Your task to perform on an android device: open app "Google Sheets" (install if not already installed) Image 0: 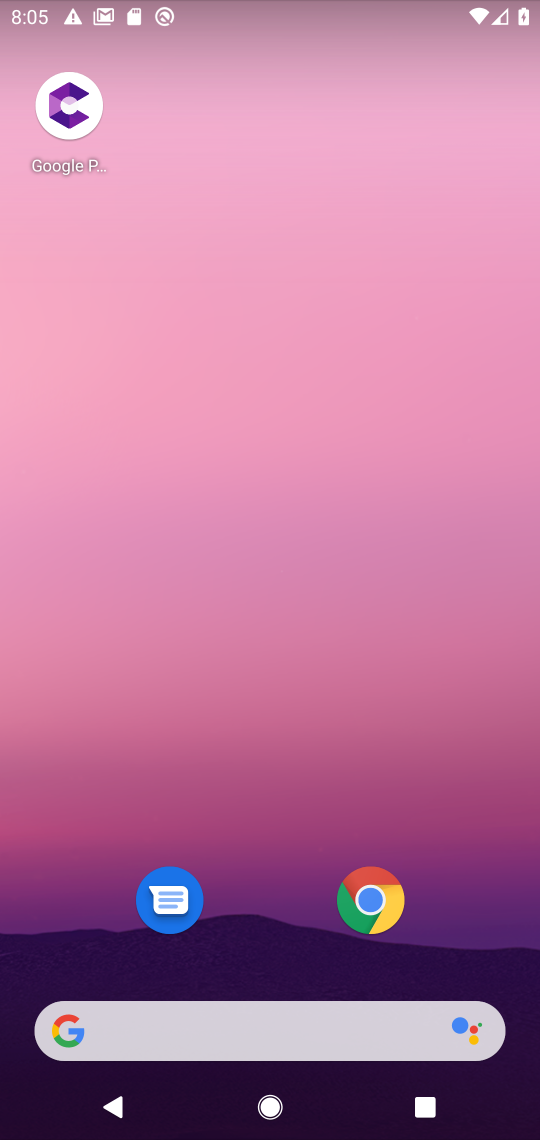
Step 0: drag from (229, 989) to (390, 116)
Your task to perform on an android device: open app "Google Sheets" (install if not already installed) Image 1: 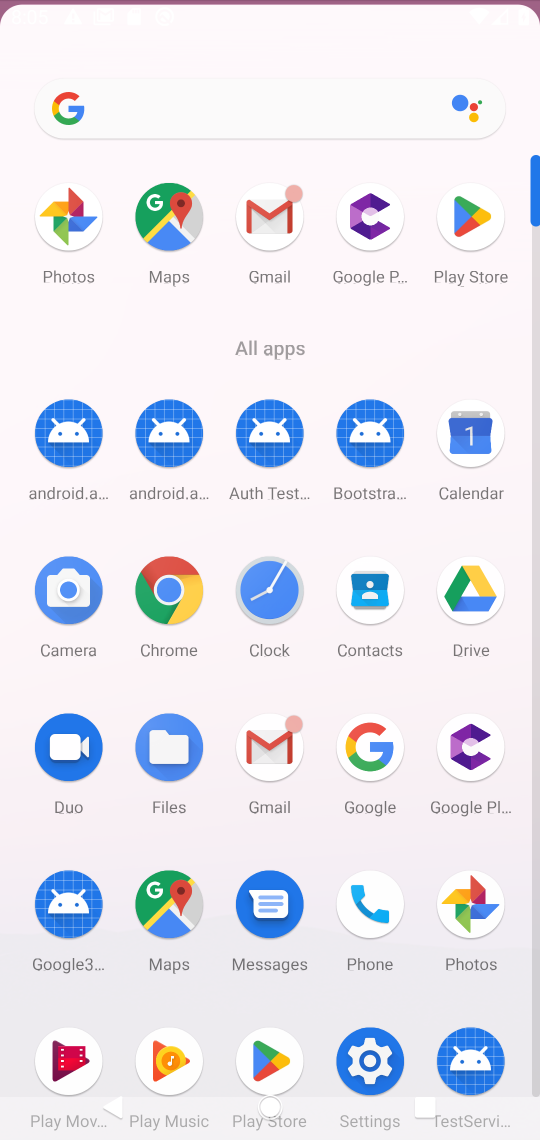
Step 1: click (264, 1052)
Your task to perform on an android device: open app "Google Sheets" (install if not already installed) Image 2: 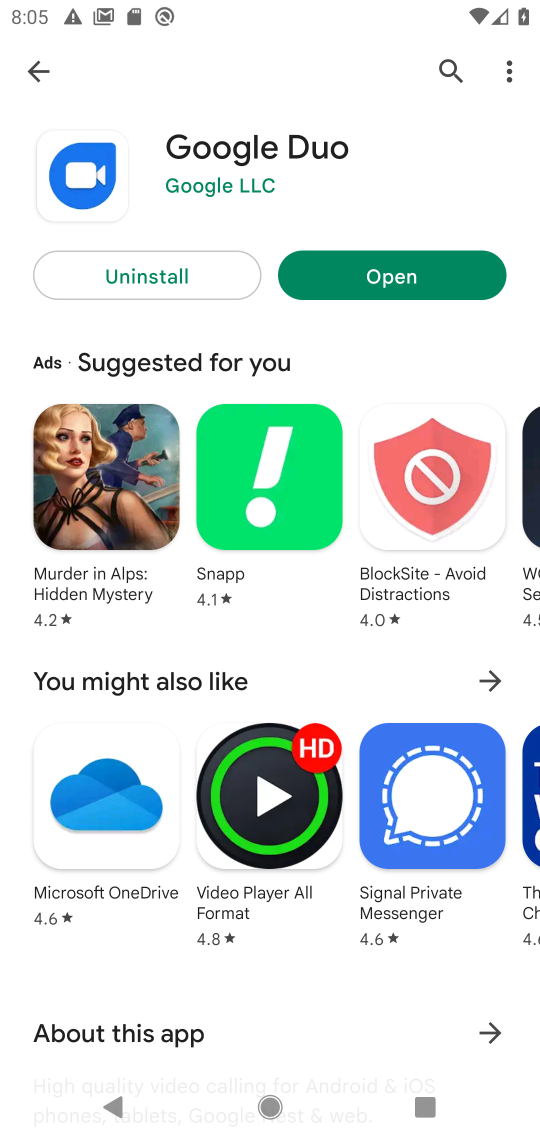
Step 2: click (78, 49)
Your task to perform on an android device: open app "Google Sheets" (install if not already installed) Image 3: 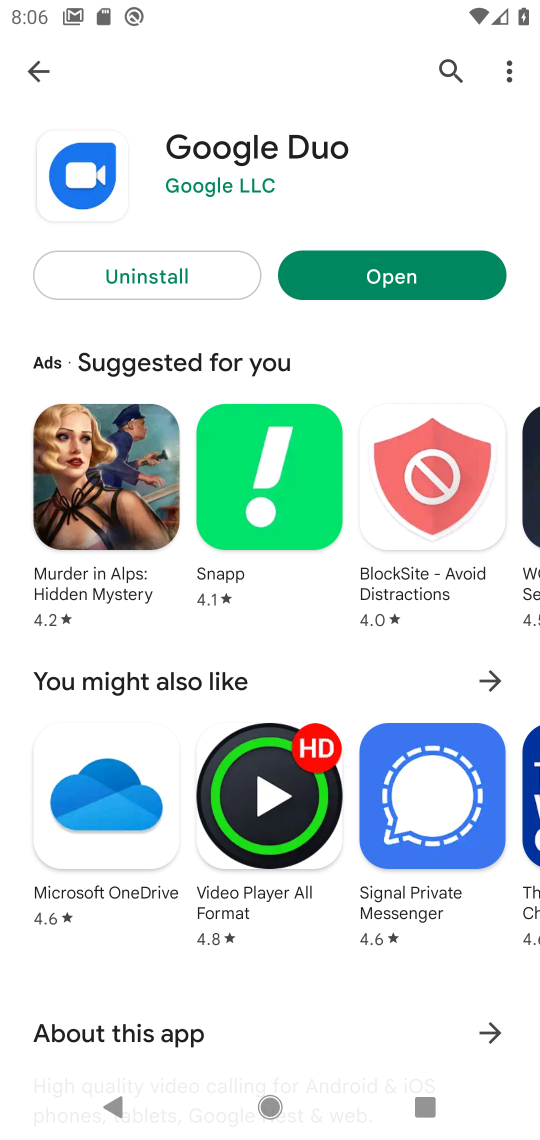
Step 3: click (40, 69)
Your task to perform on an android device: open app "Google Sheets" (install if not already installed) Image 4: 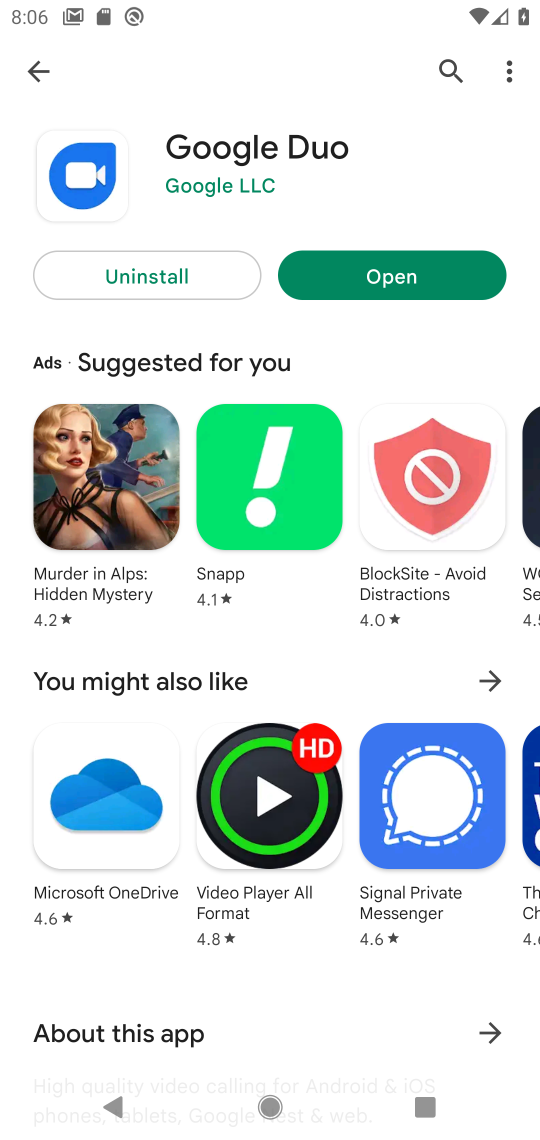
Step 4: click (450, 73)
Your task to perform on an android device: open app "Google Sheets" (install if not already installed) Image 5: 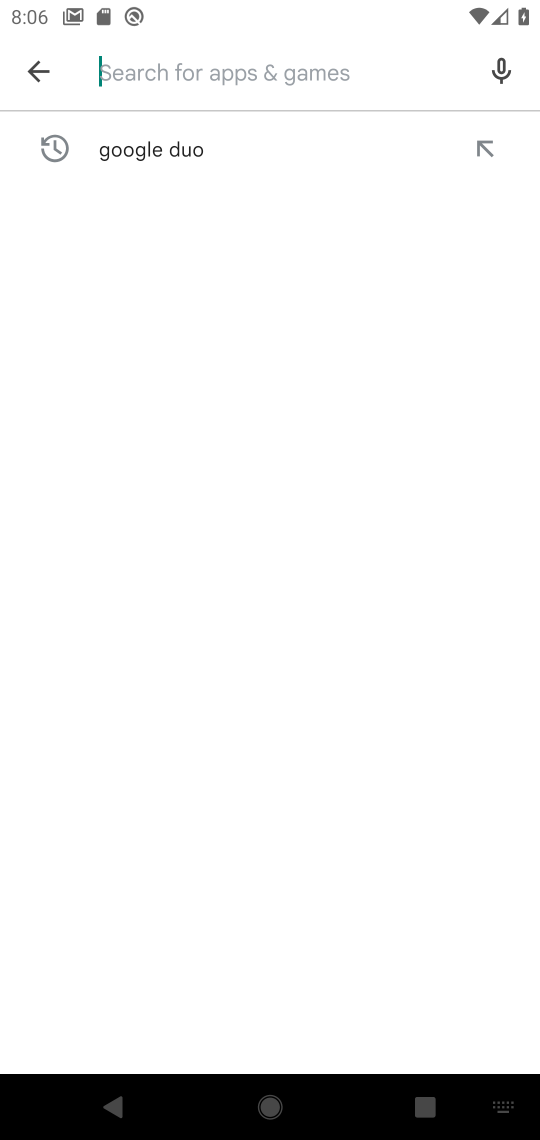
Step 5: type "Google Sheets"
Your task to perform on an android device: open app "Google Sheets" (install if not already installed) Image 6: 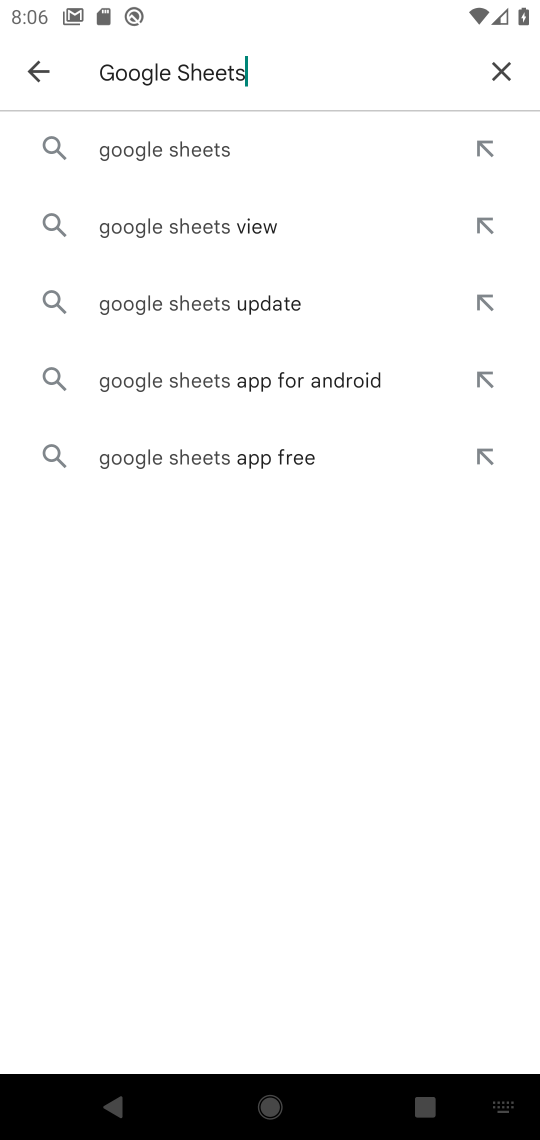
Step 6: click (148, 146)
Your task to perform on an android device: open app "Google Sheets" (install if not already installed) Image 7: 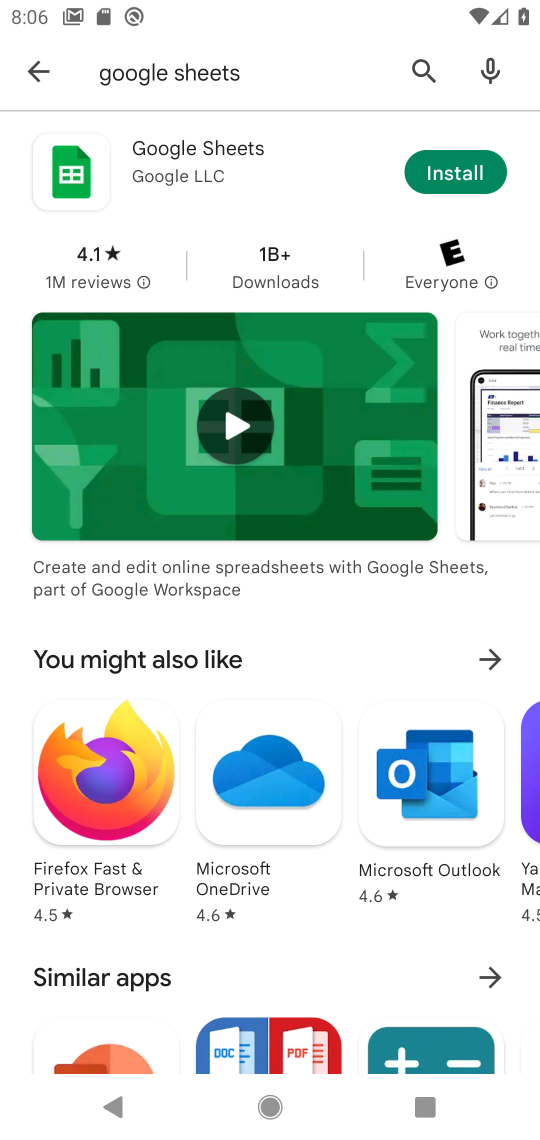
Step 7: click (420, 182)
Your task to perform on an android device: open app "Google Sheets" (install if not already installed) Image 8: 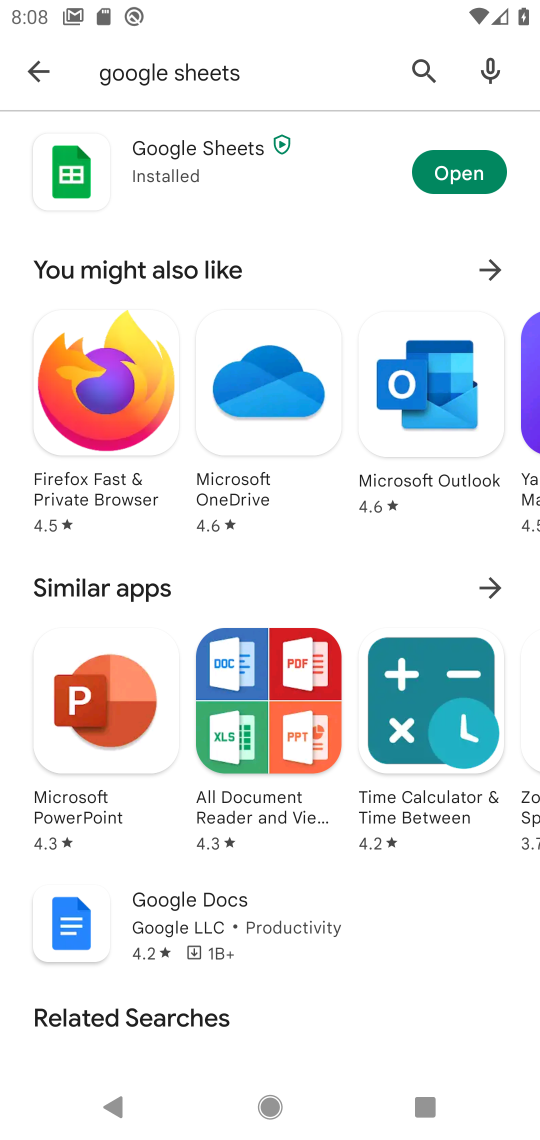
Step 8: click (426, 154)
Your task to perform on an android device: open app "Google Sheets" (install if not already installed) Image 9: 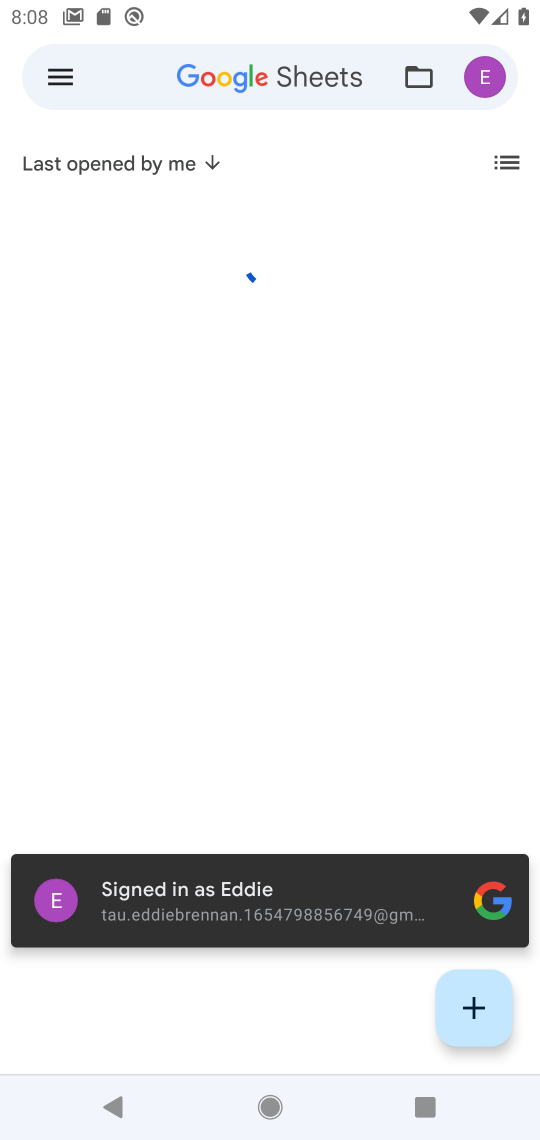
Step 9: task complete